Your task to perform on an android device: create a new album in the google photos Image 0: 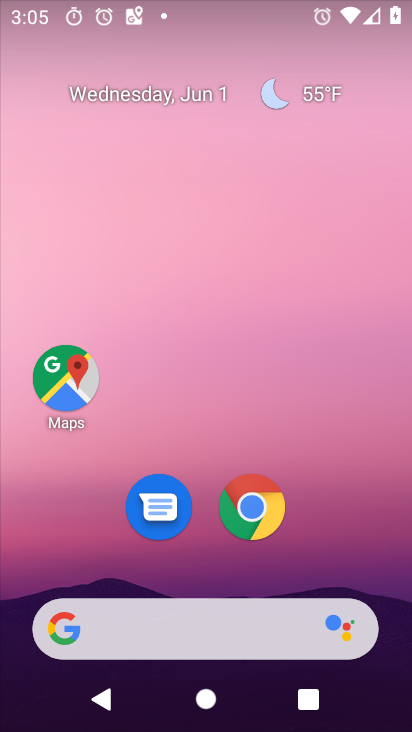
Step 0: drag from (334, 537) to (277, 0)
Your task to perform on an android device: create a new album in the google photos Image 1: 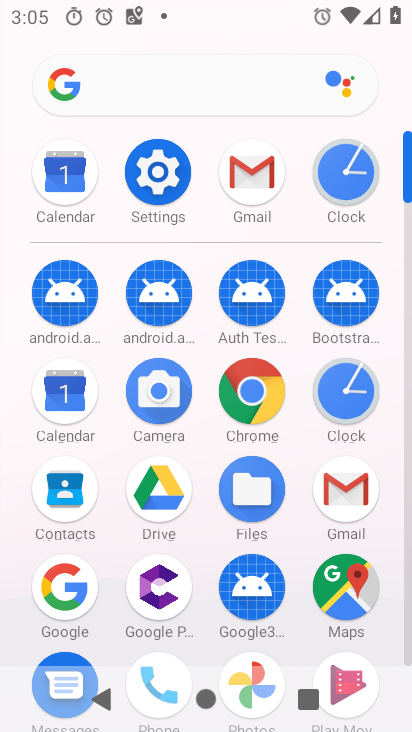
Step 1: click (405, 497)
Your task to perform on an android device: create a new album in the google photos Image 2: 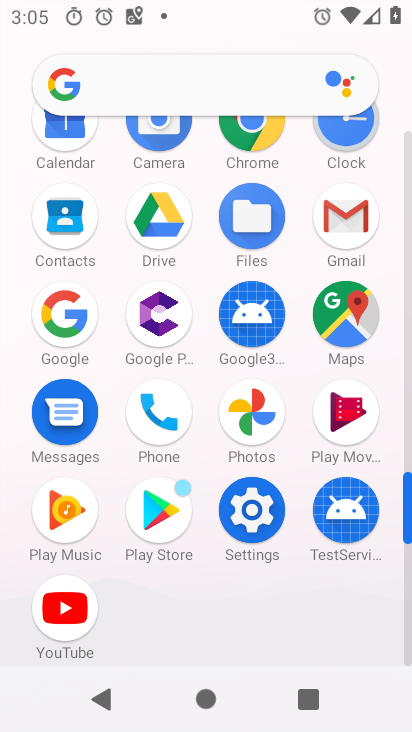
Step 2: click (247, 406)
Your task to perform on an android device: create a new album in the google photos Image 3: 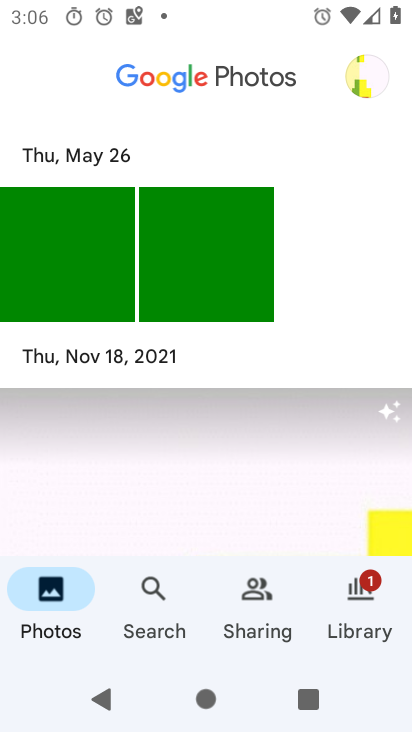
Step 3: drag from (181, 428) to (187, 220)
Your task to perform on an android device: create a new album in the google photos Image 4: 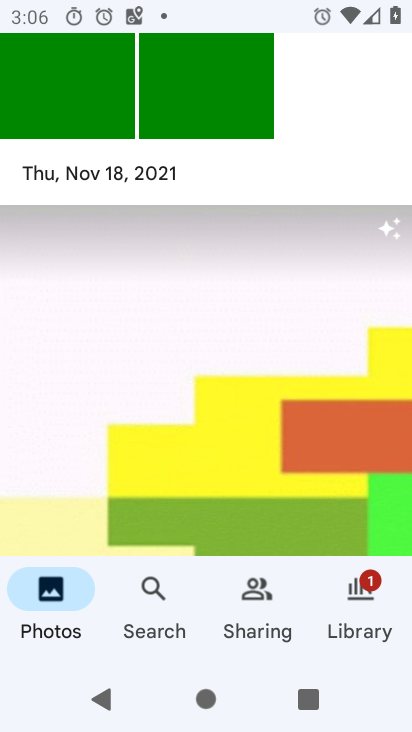
Step 4: drag from (201, 387) to (183, 96)
Your task to perform on an android device: create a new album in the google photos Image 5: 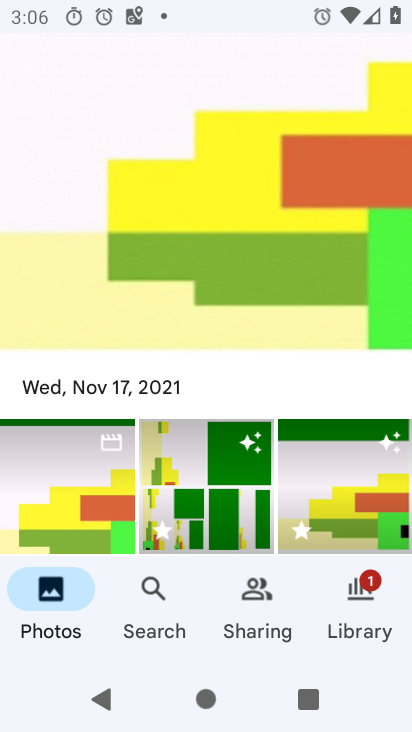
Step 5: drag from (215, 401) to (215, 199)
Your task to perform on an android device: create a new album in the google photos Image 6: 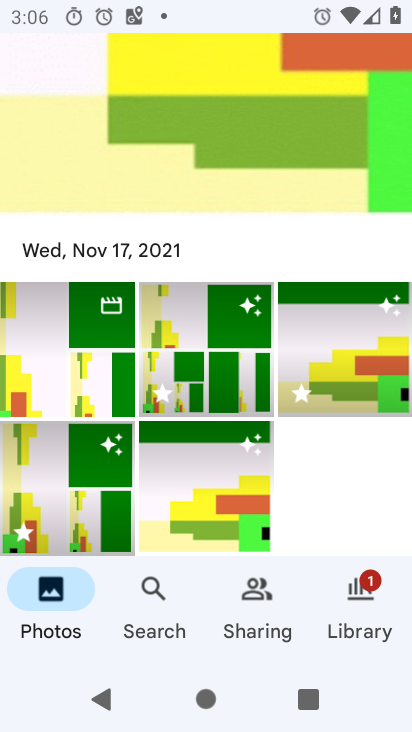
Step 6: click (209, 349)
Your task to perform on an android device: create a new album in the google photos Image 7: 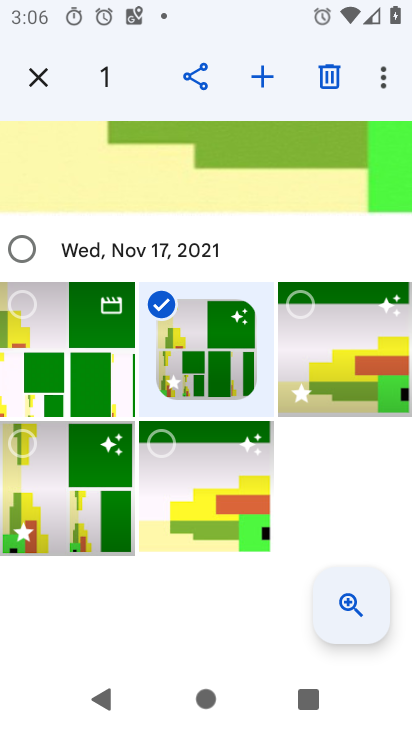
Step 7: click (300, 369)
Your task to perform on an android device: create a new album in the google photos Image 8: 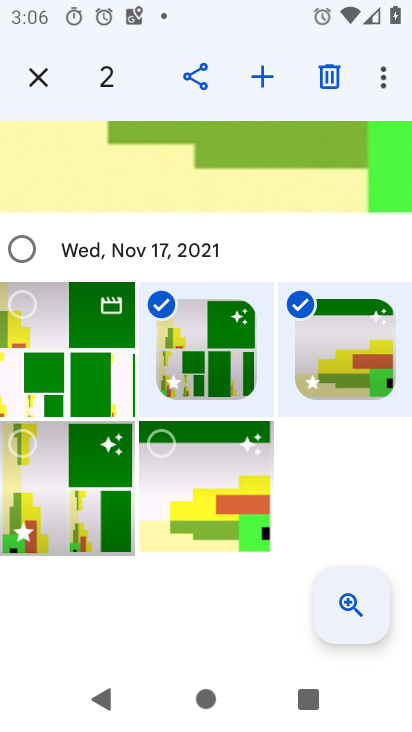
Step 8: click (265, 89)
Your task to perform on an android device: create a new album in the google photos Image 9: 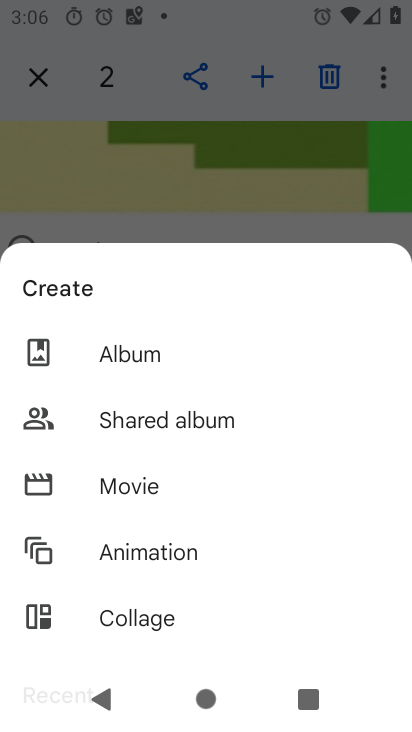
Step 9: click (126, 358)
Your task to perform on an android device: create a new album in the google photos Image 10: 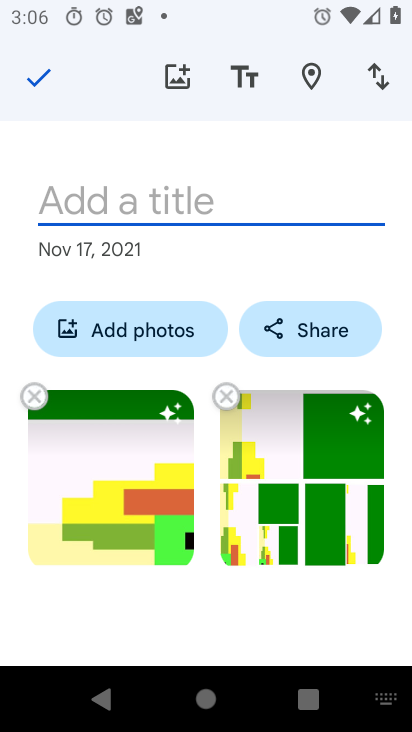
Step 10: click (99, 210)
Your task to perform on an android device: create a new album in the google photos Image 11: 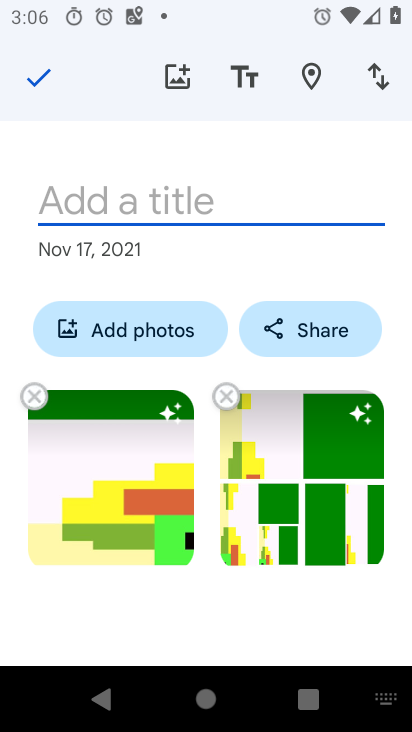
Step 11: type "new 1"
Your task to perform on an android device: create a new album in the google photos Image 12: 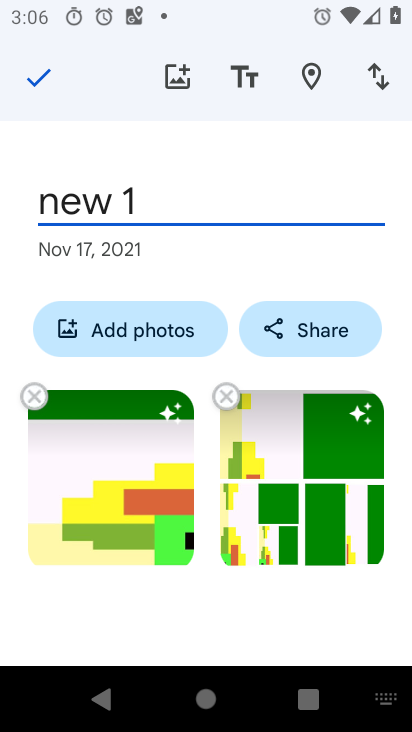
Step 12: click (31, 90)
Your task to perform on an android device: create a new album in the google photos Image 13: 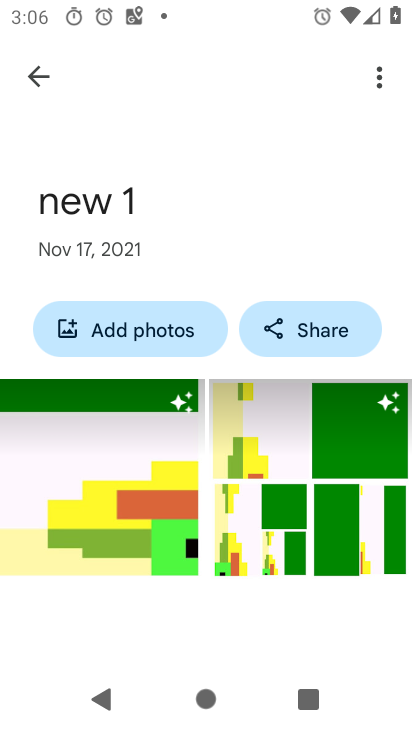
Step 13: task complete